Your task to perform on an android device: toggle airplane mode Image 0: 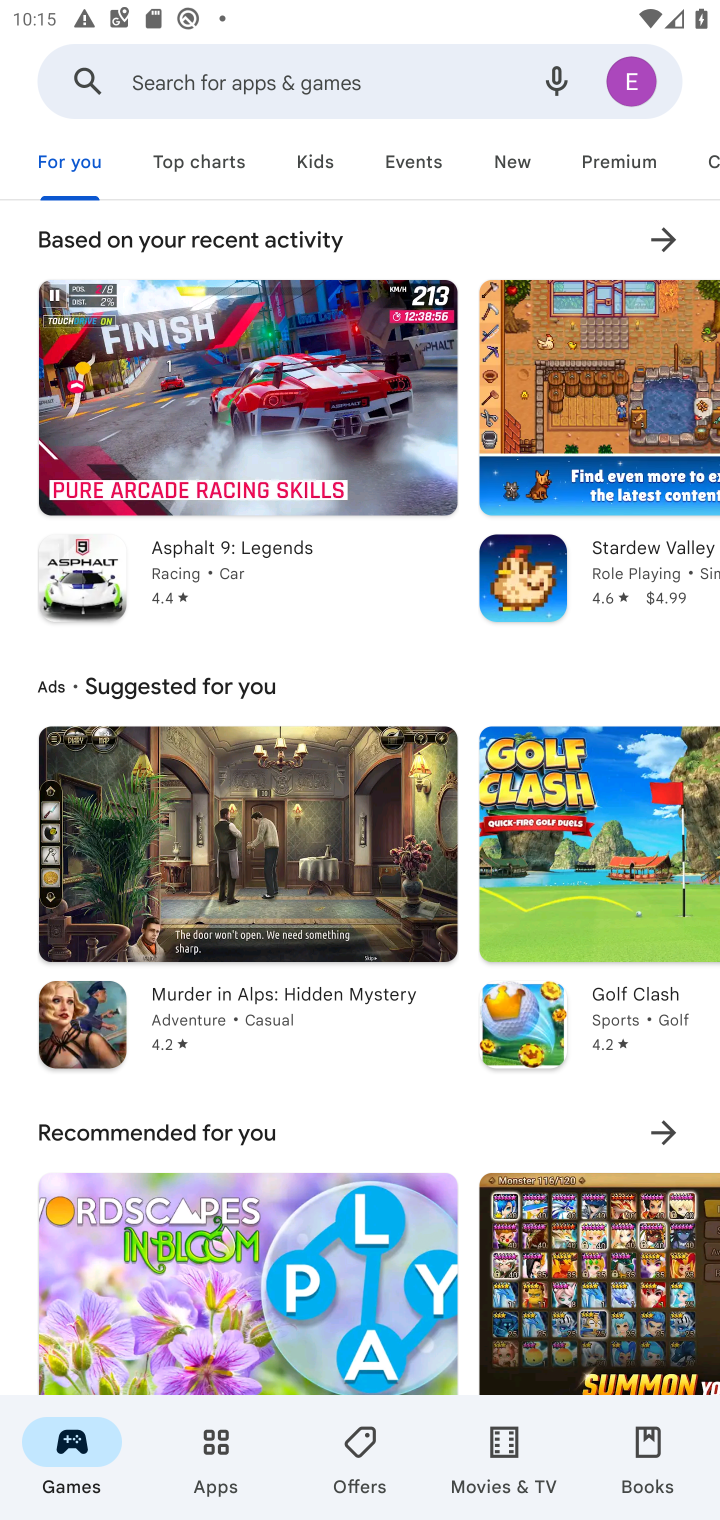
Step 0: press home button
Your task to perform on an android device: toggle airplane mode Image 1: 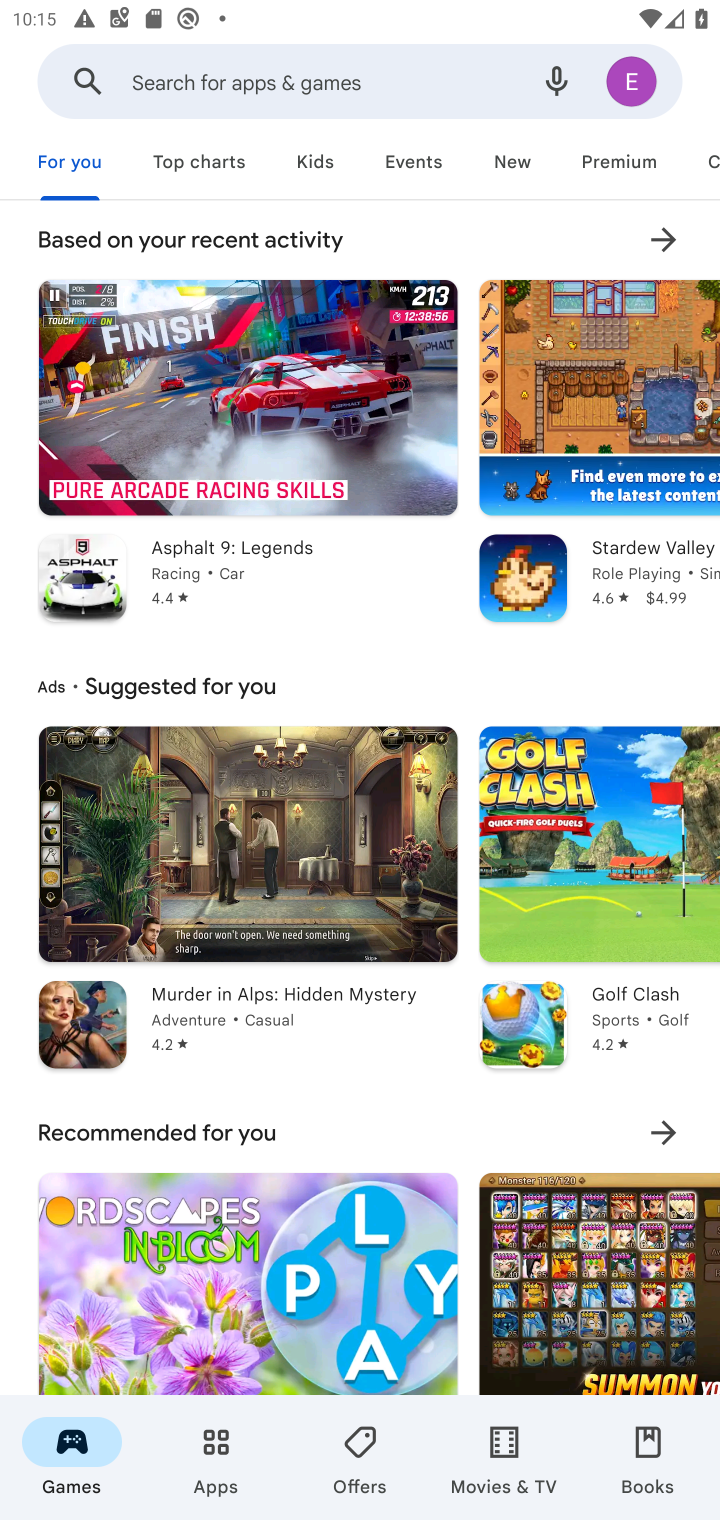
Step 1: click (524, 533)
Your task to perform on an android device: toggle airplane mode Image 2: 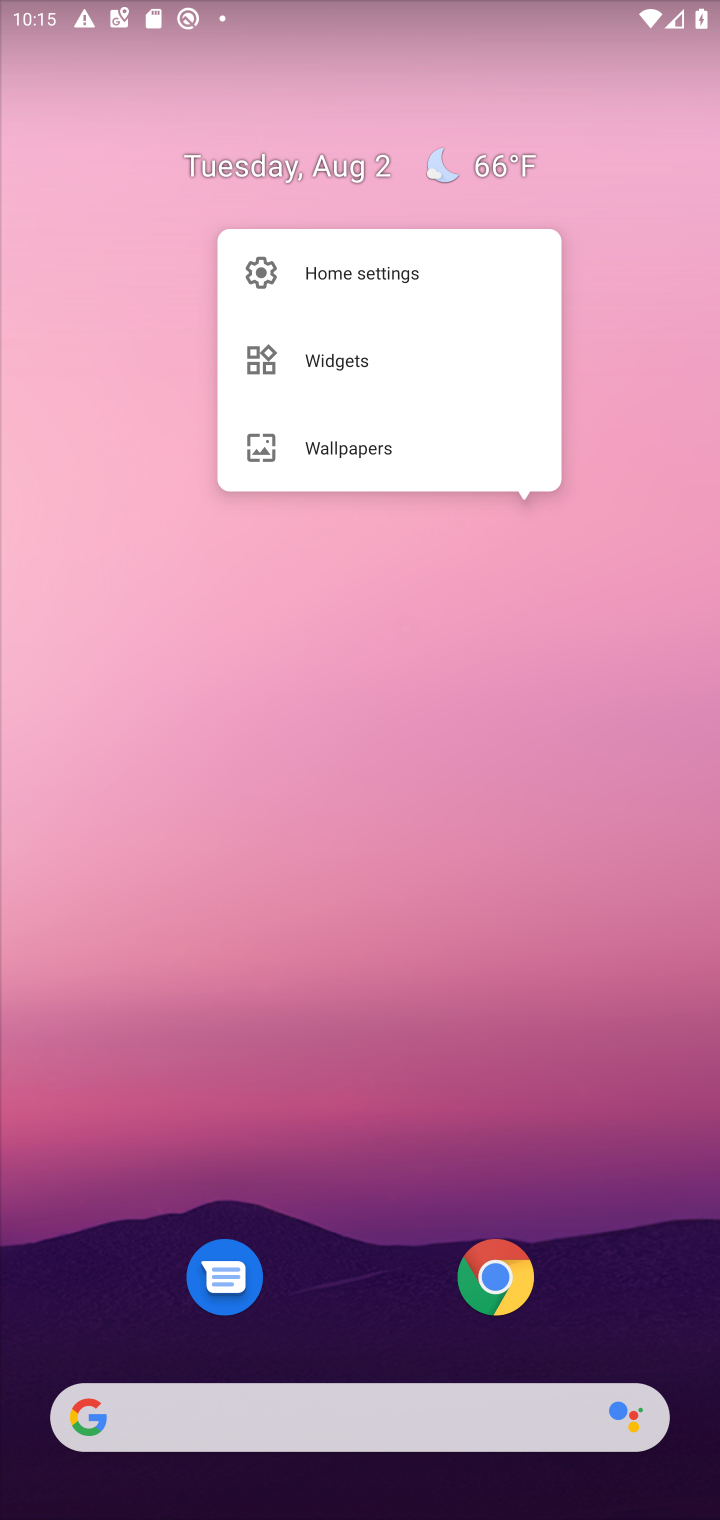
Step 2: drag from (544, 348) to (550, 510)
Your task to perform on an android device: toggle airplane mode Image 3: 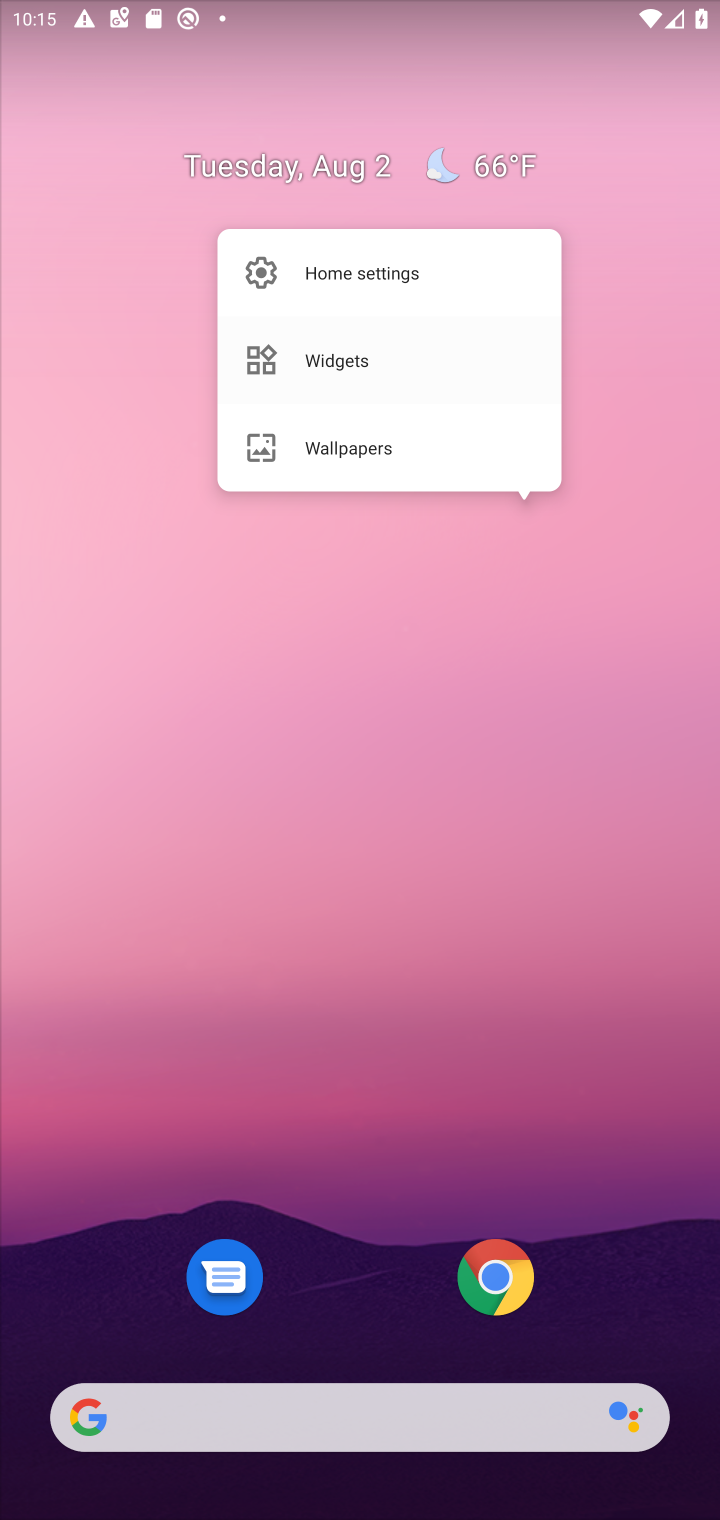
Step 3: click (438, 721)
Your task to perform on an android device: toggle airplane mode Image 4: 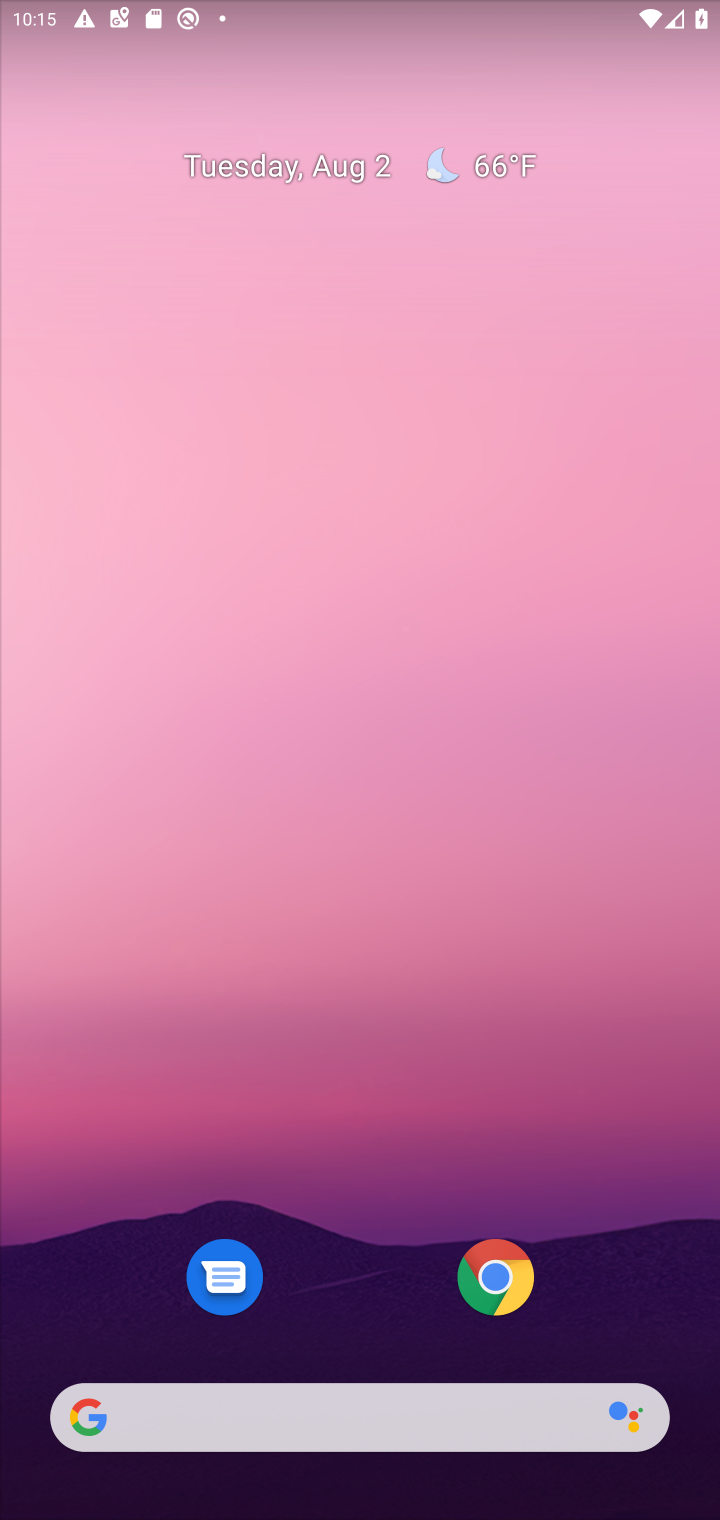
Step 4: task complete